Your task to perform on an android device: open wifi settings Image 0: 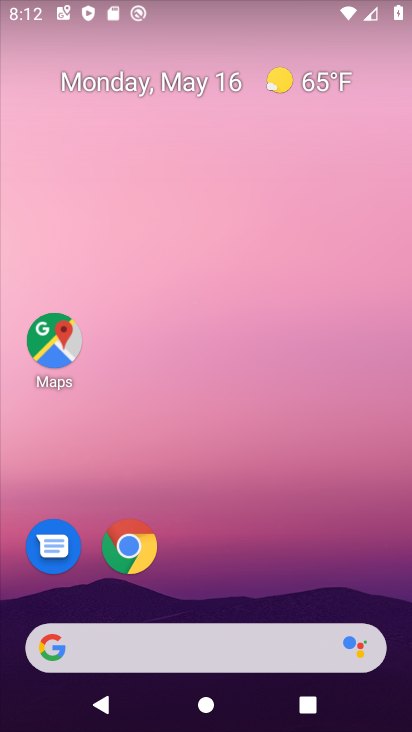
Step 0: drag from (252, 527) to (138, 35)
Your task to perform on an android device: open wifi settings Image 1: 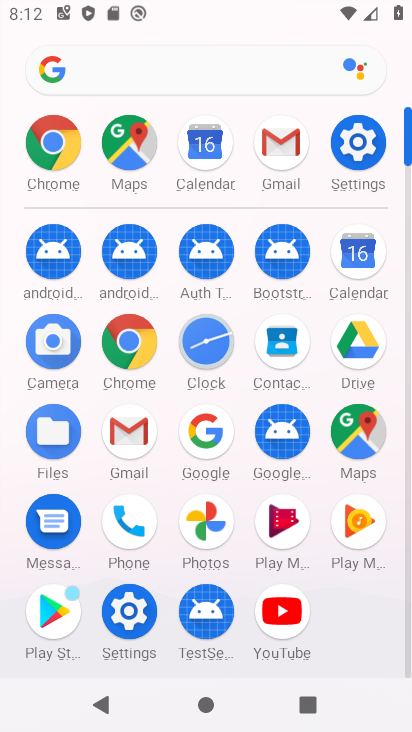
Step 1: click (349, 166)
Your task to perform on an android device: open wifi settings Image 2: 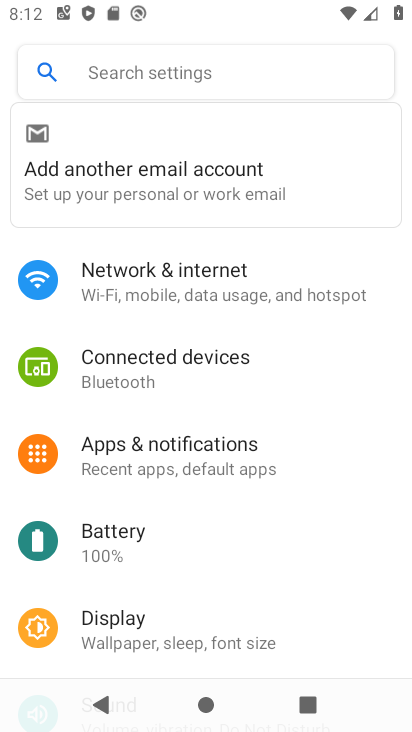
Step 2: click (233, 280)
Your task to perform on an android device: open wifi settings Image 3: 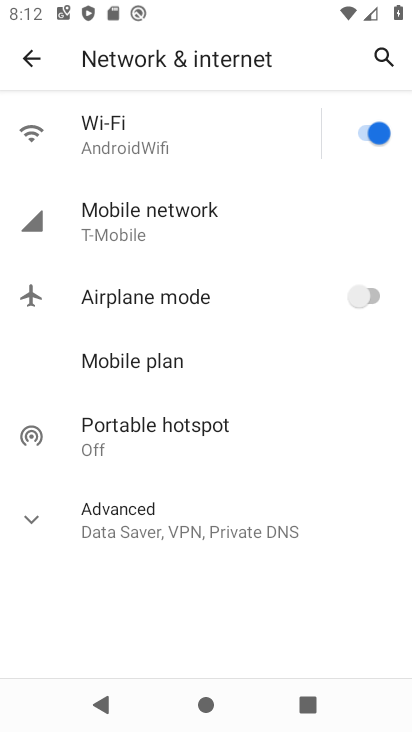
Step 3: click (332, 135)
Your task to perform on an android device: open wifi settings Image 4: 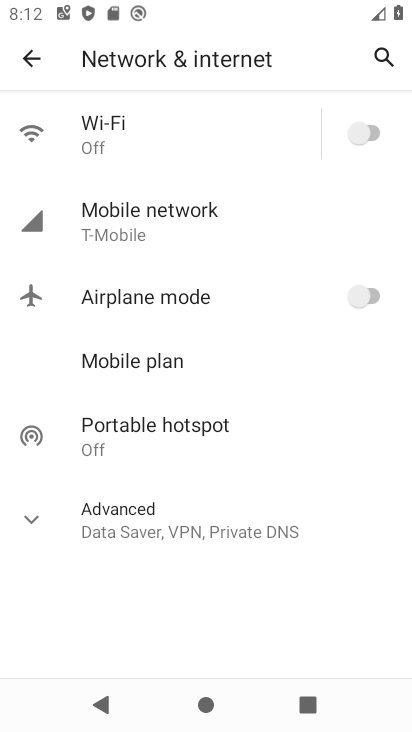
Step 4: click (332, 135)
Your task to perform on an android device: open wifi settings Image 5: 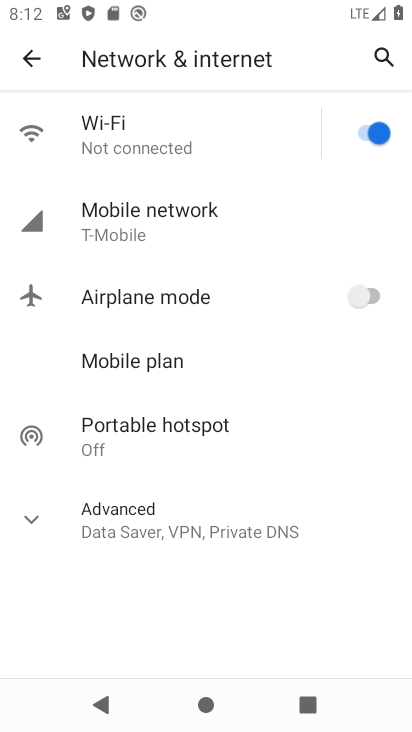
Step 5: click (171, 96)
Your task to perform on an android device: open wifi settings Image 6: 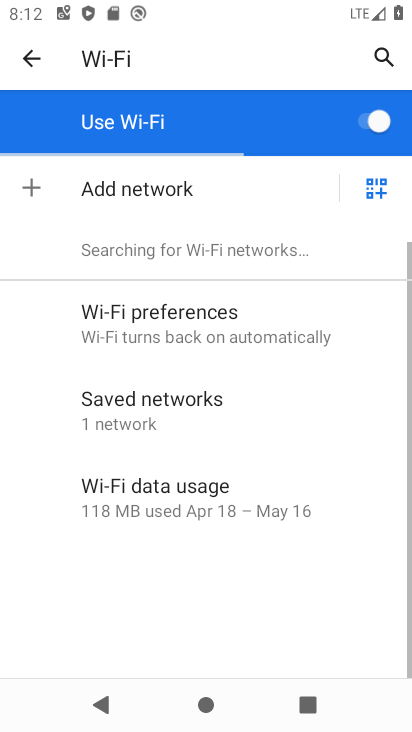
Step 6: task complete